Your task to perform on an android device: Open maps Image 0: 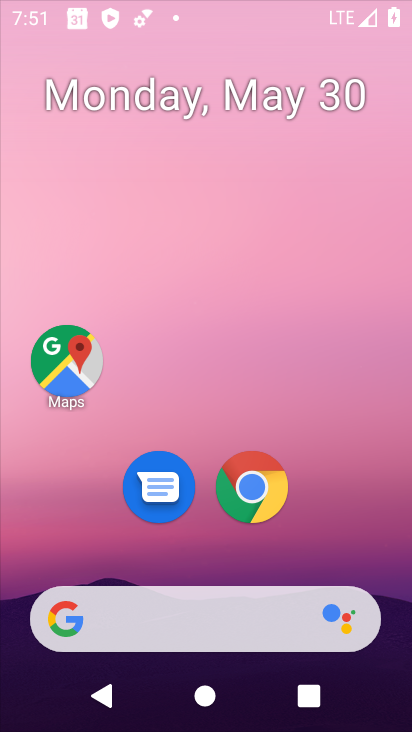
Step 0: click (408, 395)
Your task to perform on an android device: Open maps Image 1: 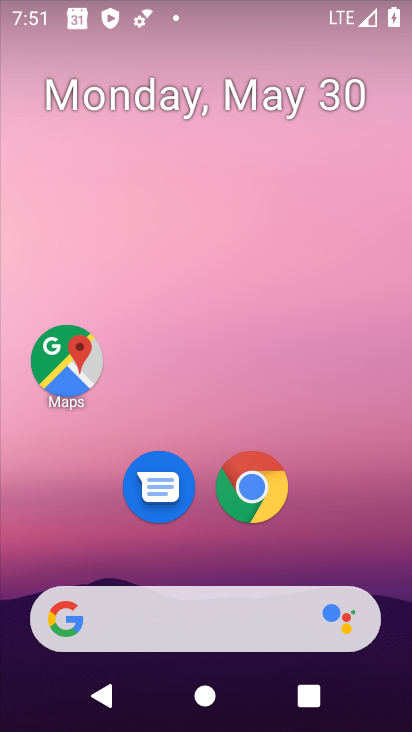
Step 1: click (82, 363)
Your task to perform on an android device: Open maps Image 2: 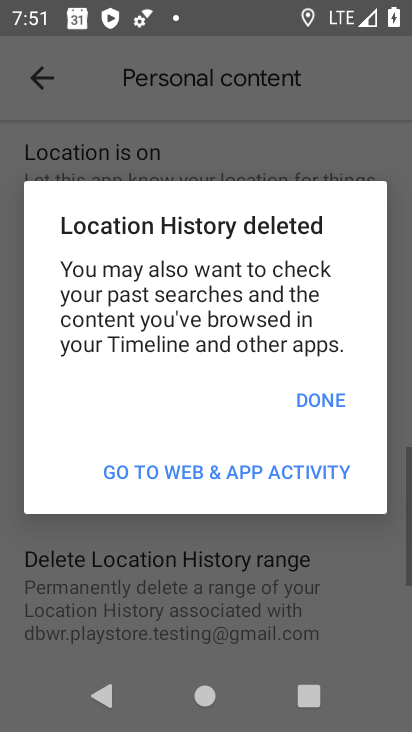
Step 2: click (296, 395)
Your task to perform on an android device: Open maps Image 3: 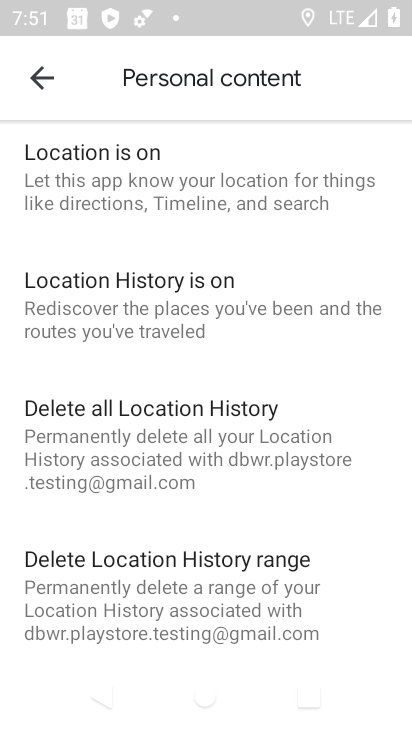
Step 3: click (45, 90)
Your task to perform on an android device: Open maps Image 4: 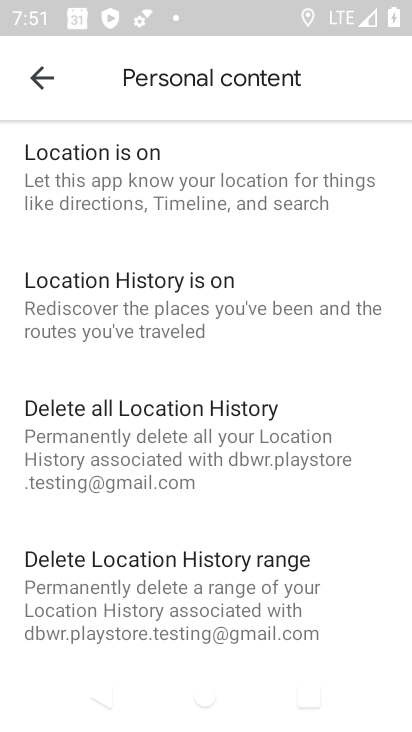
Step 4: click (45, 90)
Your task to perform on an android device: Open maps Image 5: 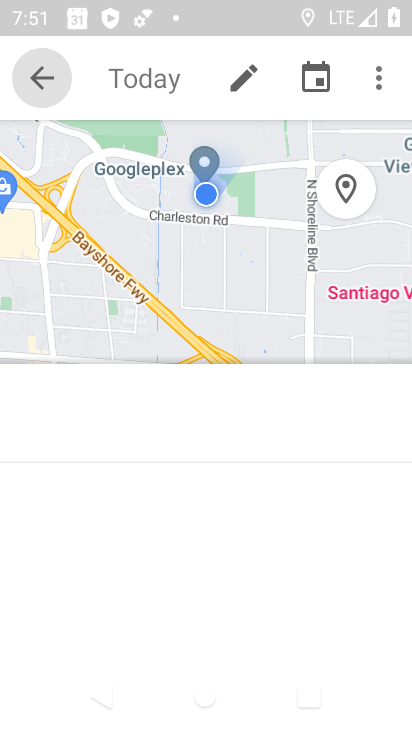
Step 5: click (45, 91)
Your task to perform on an android device: Open maps Image 6: 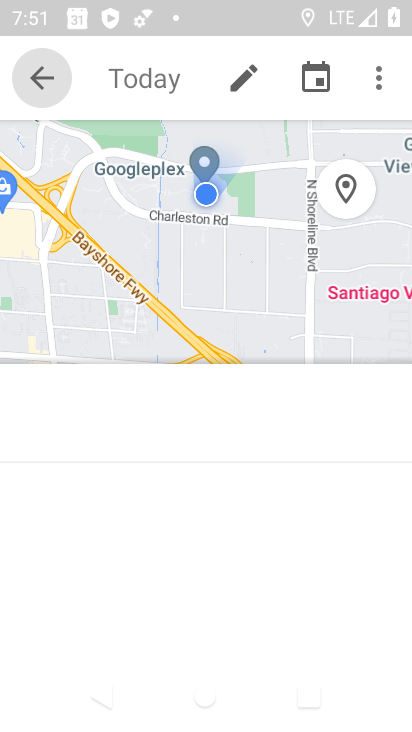
Step 6: task complete